Your task to perform on an android device: What's on Reddit this week Image 0: 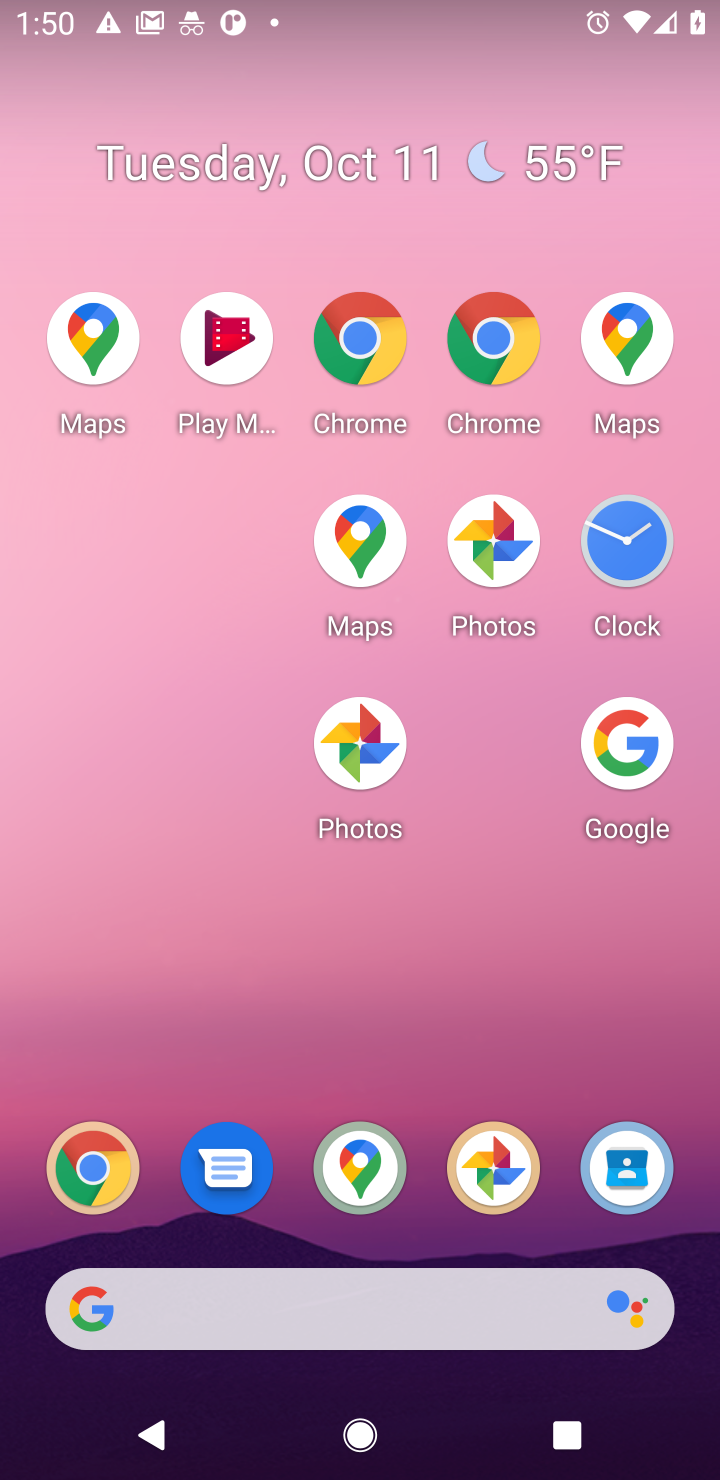
Step 0: click (626, 772)
Your task to perform on an android device: What's on Reddit this week Image 1: 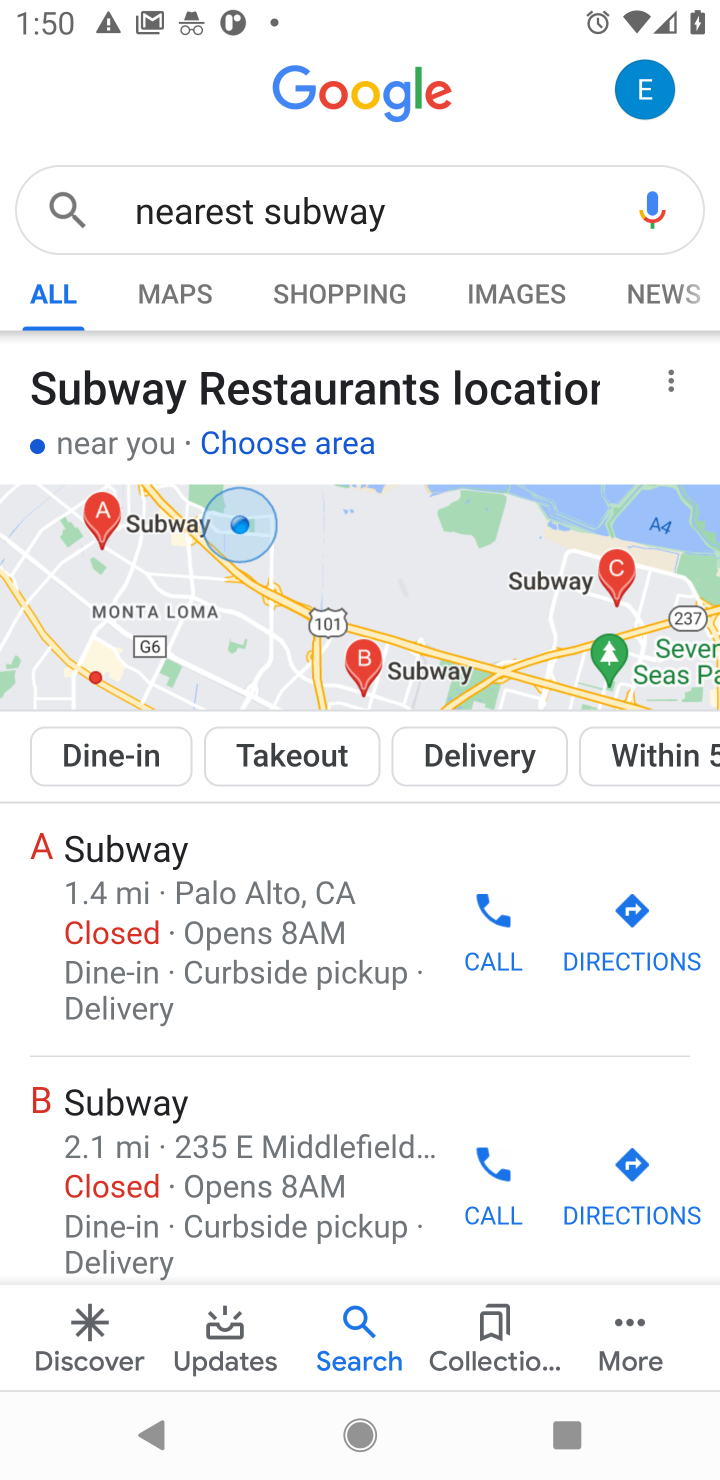
Step 1: click (422, 225)
Your task to perform on an android device: What's on Reddit this week Image 2: 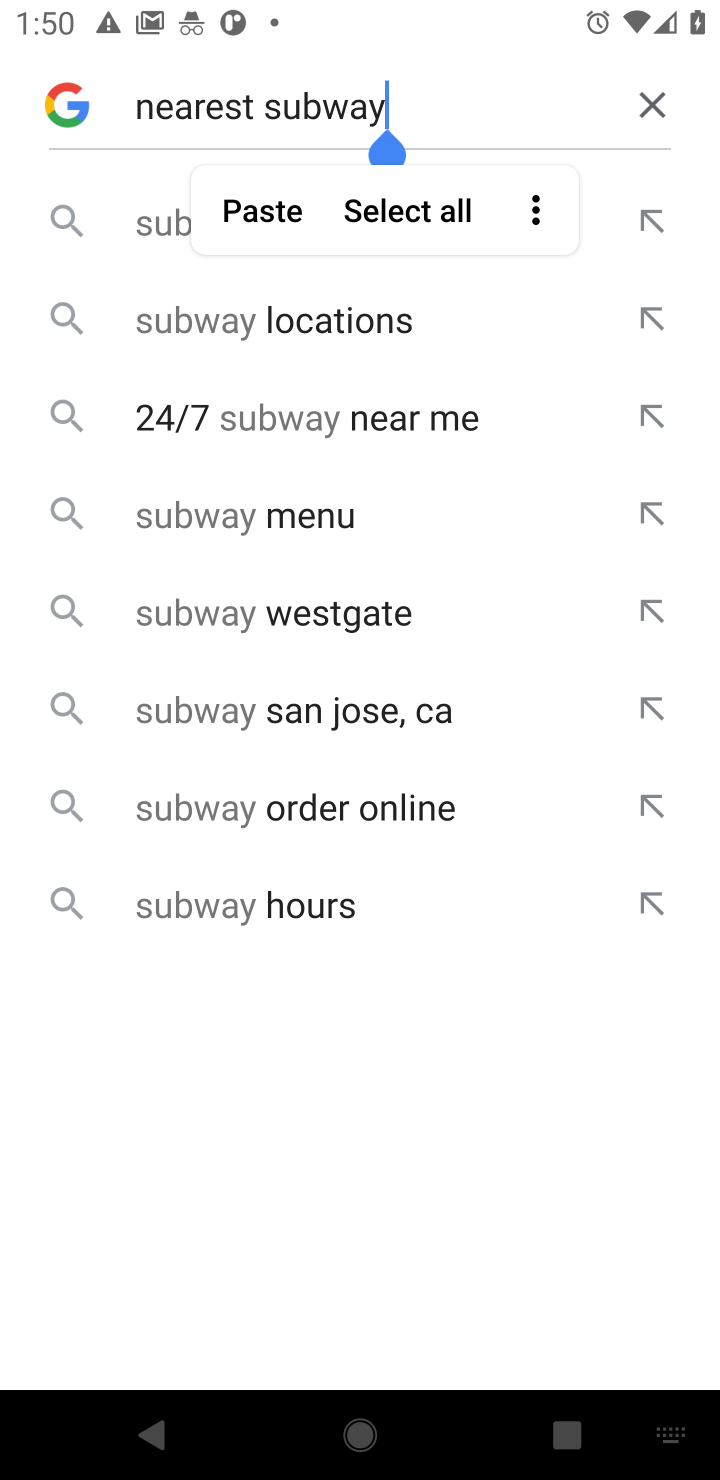
Step 2: click (658, 114)
Your task to perform on an android device: What's on Reddit this week Image 3: 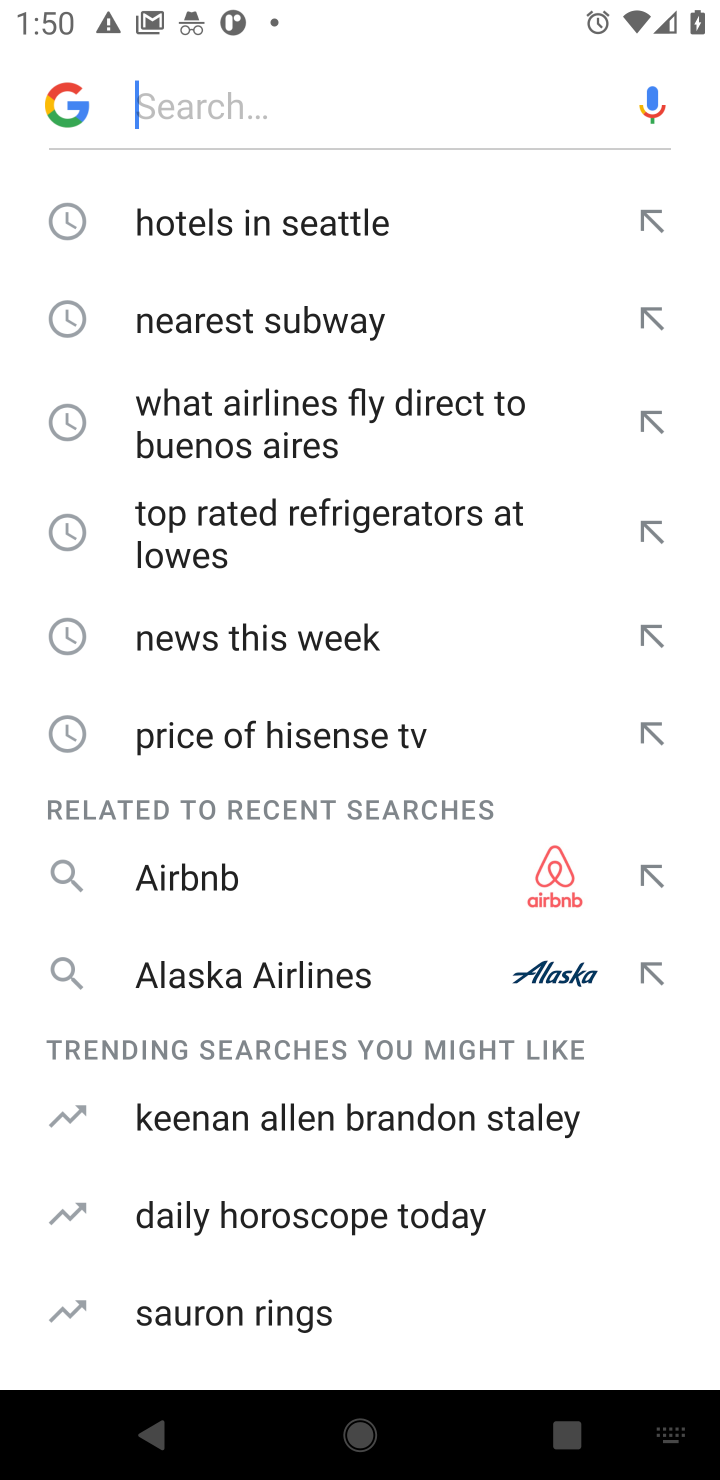
Step 3: type "What's on Reddit this week"
Your task to perform on an android device: What's on Reddit this week Image 4: 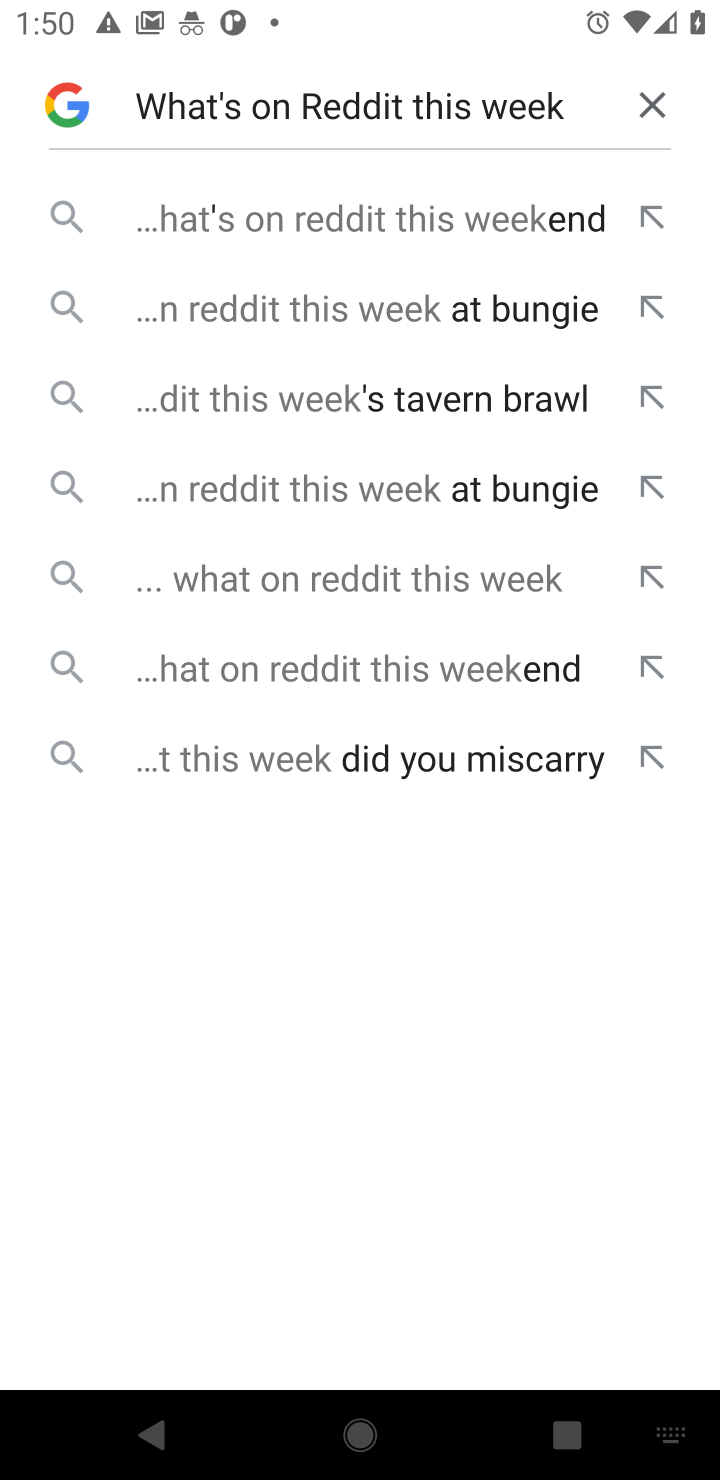
Step 4: click (329, 223)
Your task to perform on an android device: What's on Reddit this week Image 5: 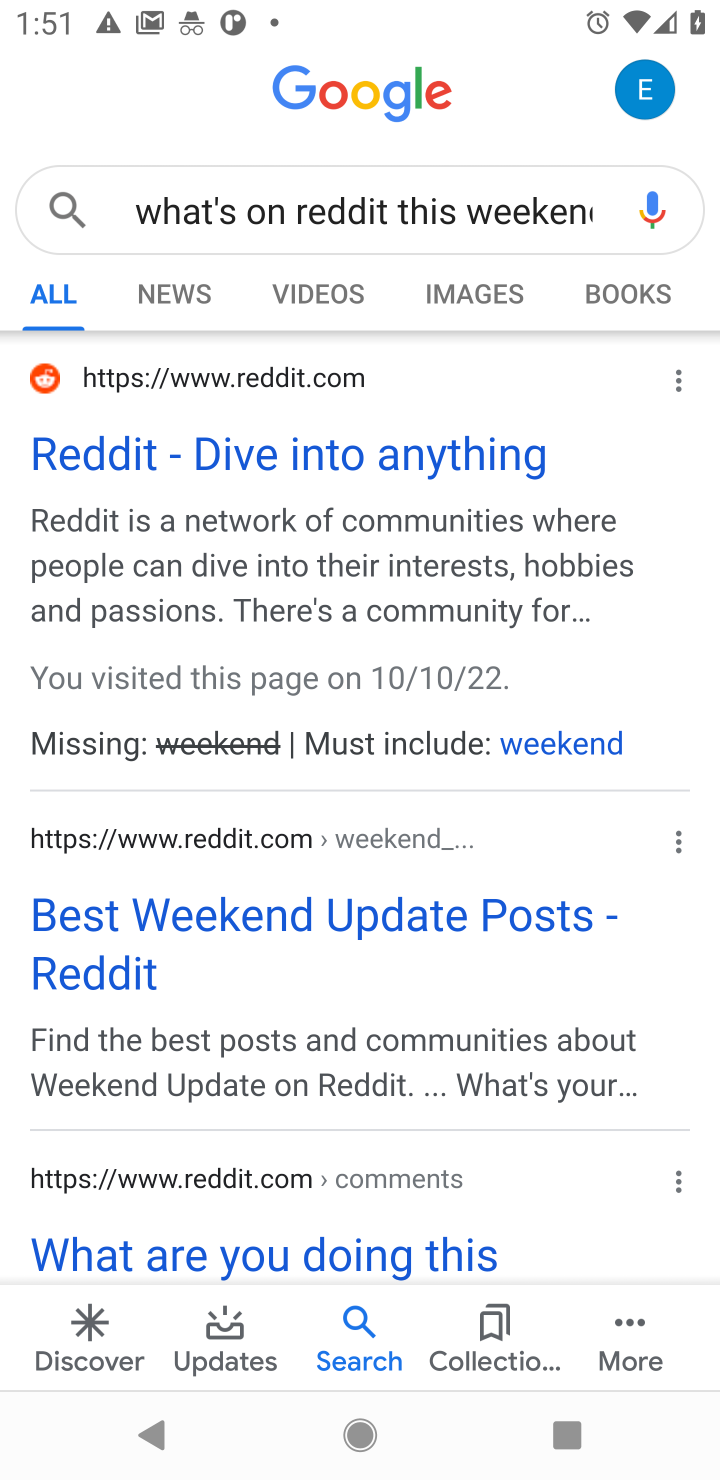
Step 5: click (500, 438)
Your task to perform on an android device: What's on Reddit this week Image 6: 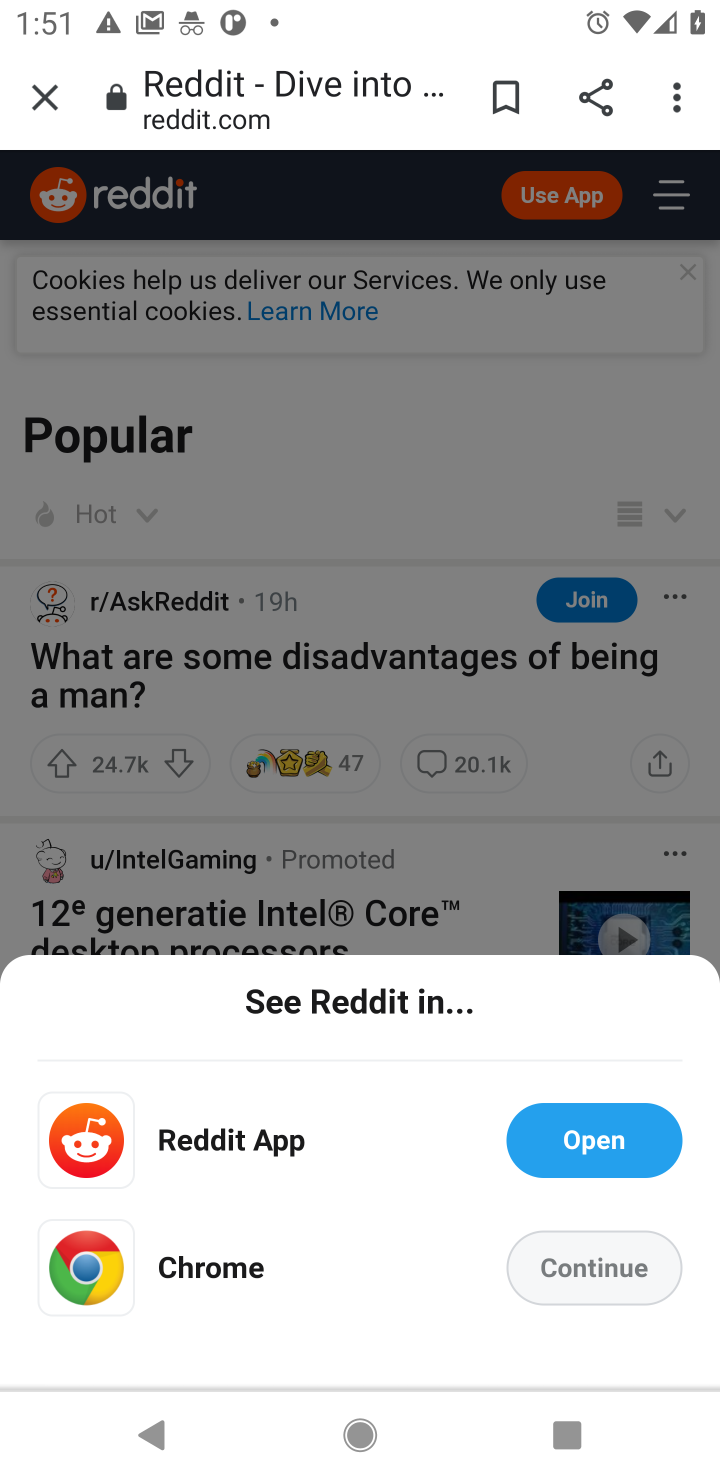
Step 6: task complete